Your task to perform on an android device: allow cookies in the chrome app Image 0: 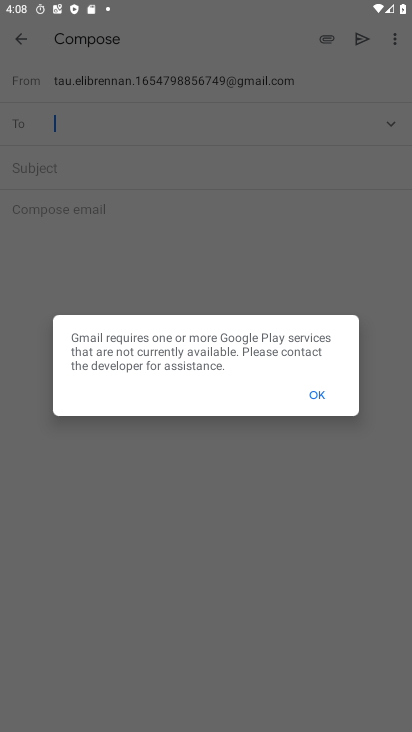
Step 0: click (315, 391)
Your task to perform on an android device: allow cookies in the chrome app Image 1: 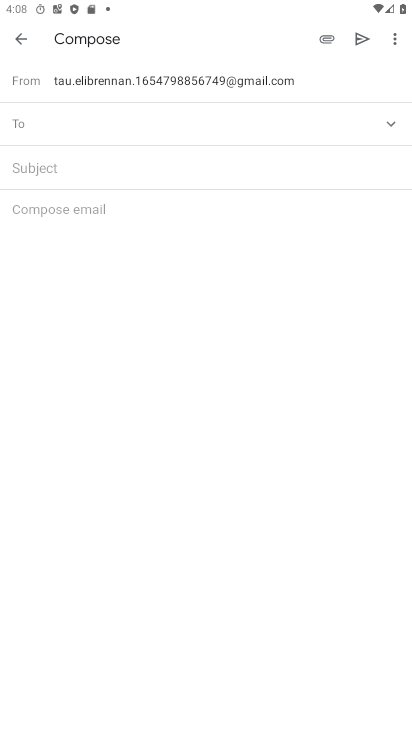
Step 1: press back button
Your task to perform on an android device: allow cookies in the chrome app Image 2: 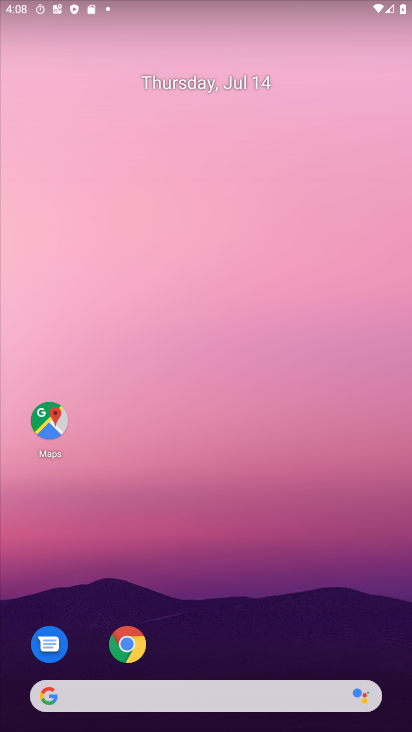
Step 2: click (127, 654)
Your task to perform on an android device: allow cookies in the chrome app Image 3: 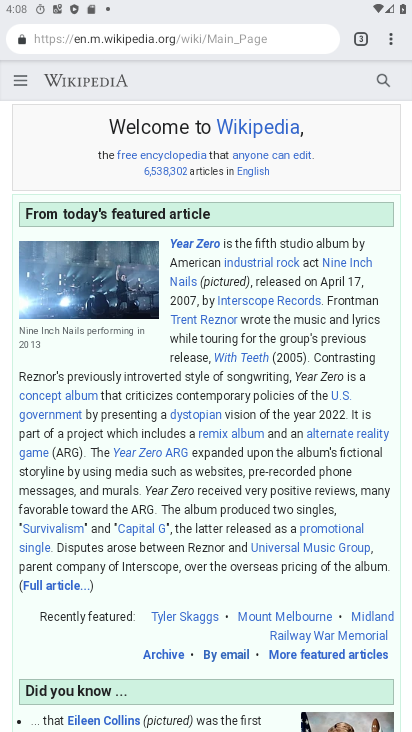
Step 3: drag from (394, 36) to (247, 460)
Your task to perform on an android device: allow cookies in the chrome app Image 4: 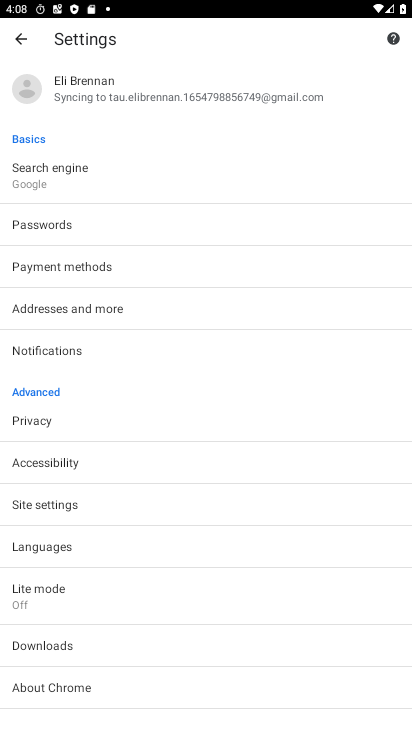
Step 4: click (66, 498)
Your task to perform on an android device: allow cookies in the chrome app Image 5: 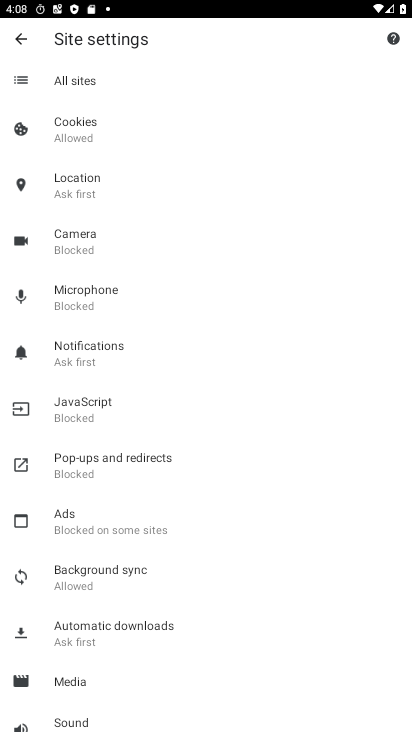
Step 5: click (87, 128)
Your task to perform on an android device: allow cookies in the chrome app Image 6: 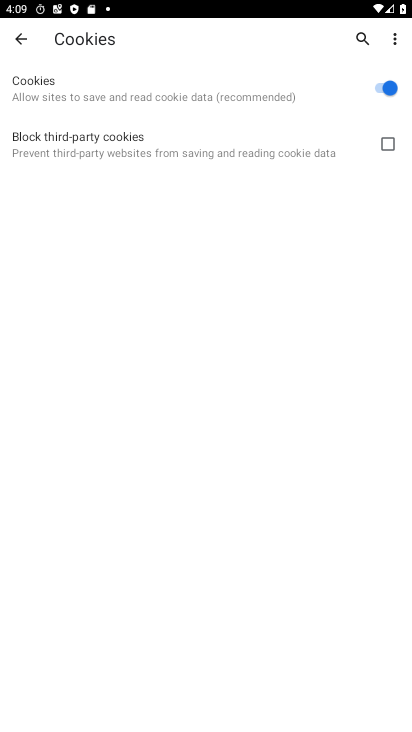
Step 6: task complete